Your task to perform on an android device: Do I have any events tomorrow? Image 0: 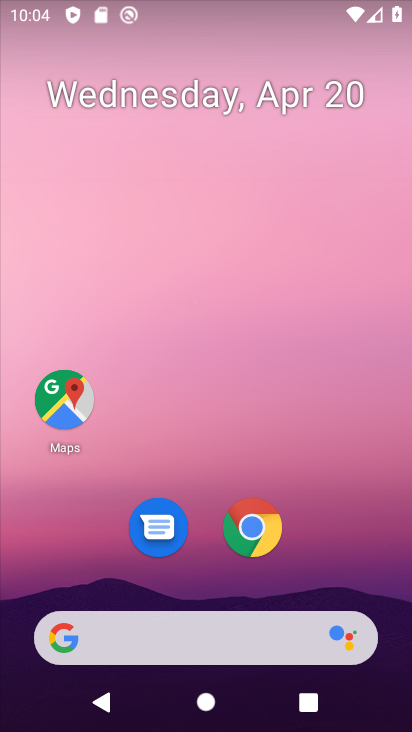
Step 0: click (73, 382)
Your task to perform on an android device: Do I have any events tomorrow? Image 1: 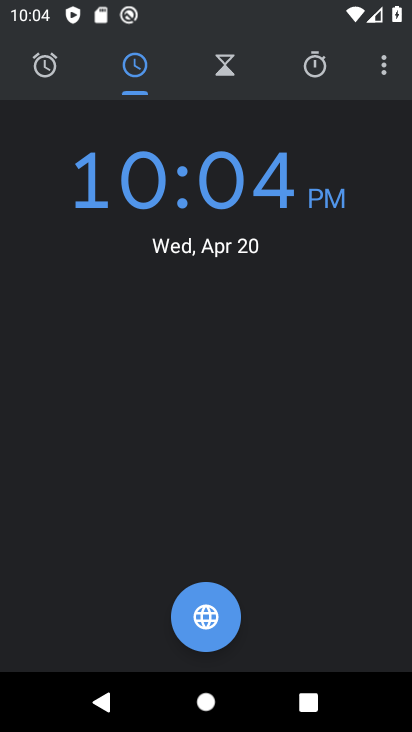
Step 1: press home button
Your task to perform on an android device: Do I have any events tomorrow? Image 2: 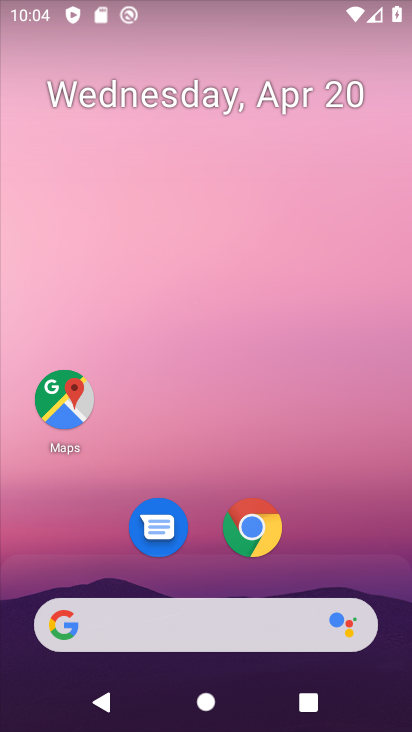
Step 2: drag from (208, 581) to (219, 8)
Your task to perform on an android device: Do I have any events tomorrow? Image 3: 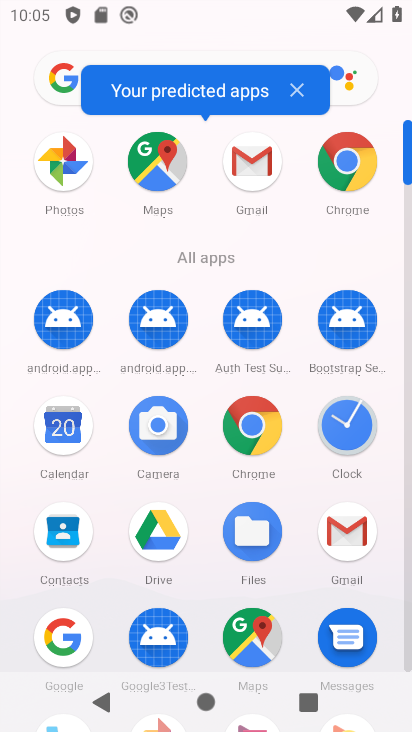
Step 3: click (74, 434)
Your task to perform on an android device: Do I have any events tomorrow? Image 4: 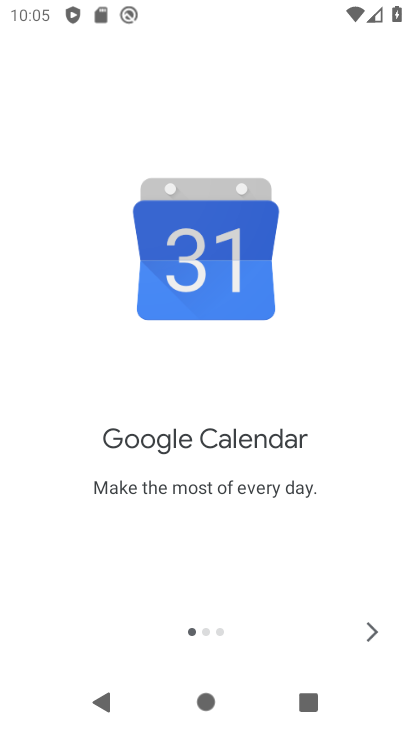
Step 4: click (372, 630)
Your task to perform on an android device: Do I have any events tomorrow? Image 5: 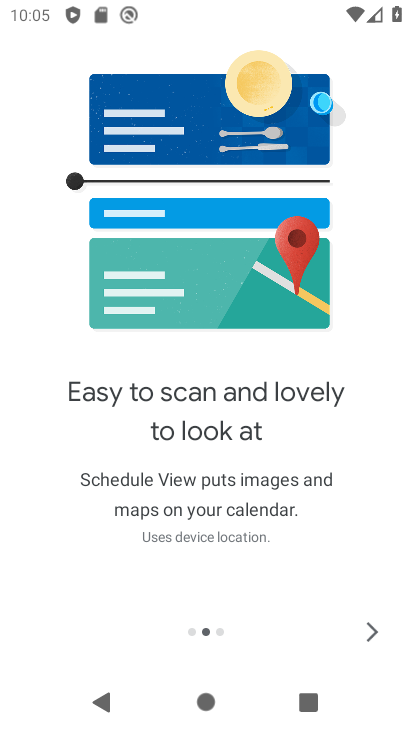
Step 5: click (372, 630)
Your task to perform on an android device: Do I have any events tomorrow? Image 6: 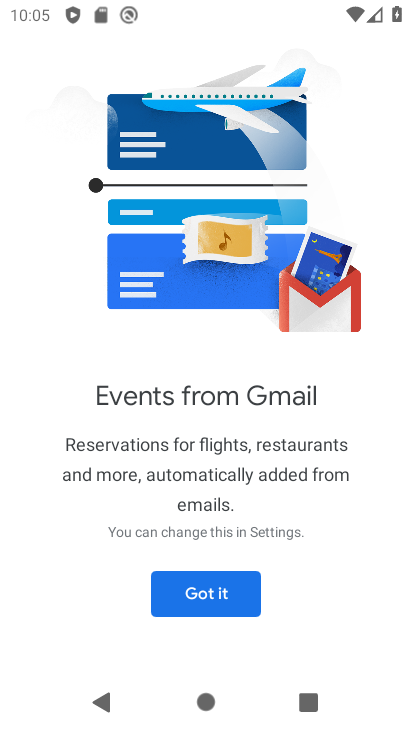
Step 6: click (201, 599)
Your task to perform on an android device: Do I have any events tomorrow? Image 7: 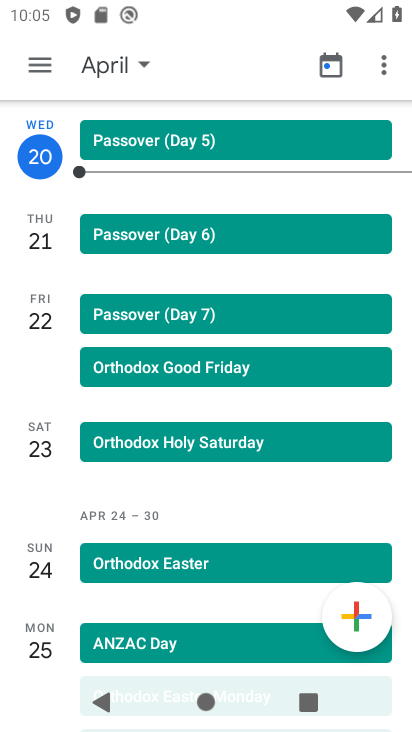
Step 7: click (38, 61)
Your task to perform on an android device: Do I have any events tomorrow? Image 8: 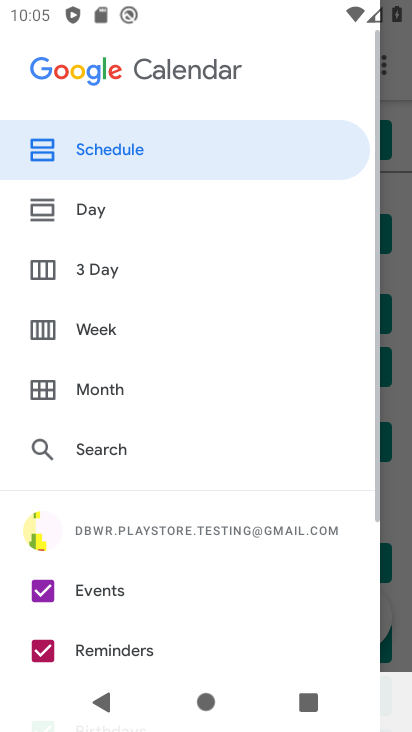
Step 8: drag from (51, 591) to (80, 378)
Your task to perform on an android device: Do I have any events tomorrow? Image 9: 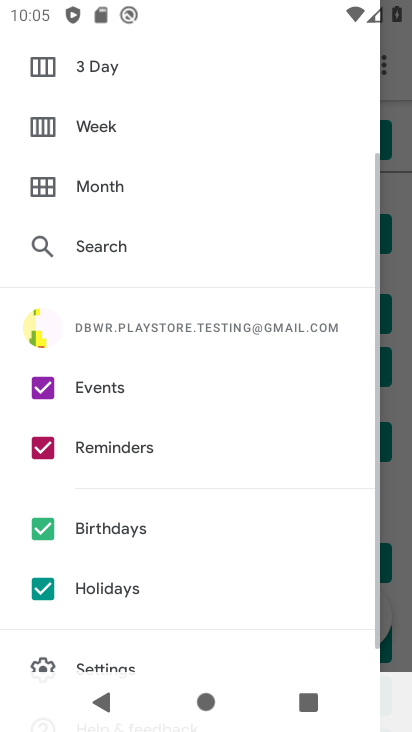
Step 9: click (50, 446)
Your task to perform on an android device: Do I have any events tomorrow? Image 10: 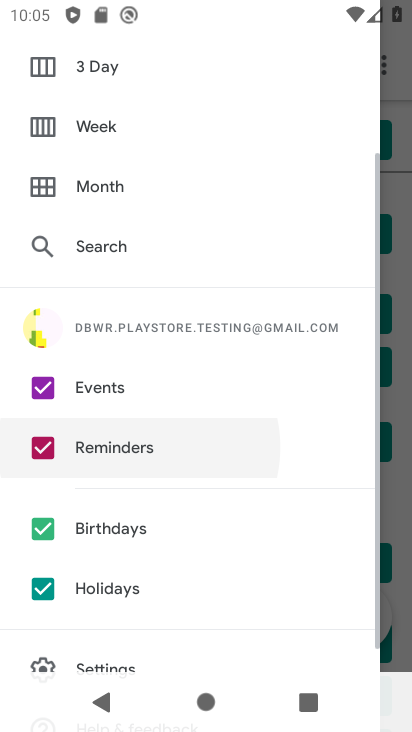
Step 10: click (42, 530)
Your task to perform on an android device: Do I have any events tomorrow? Image 11: 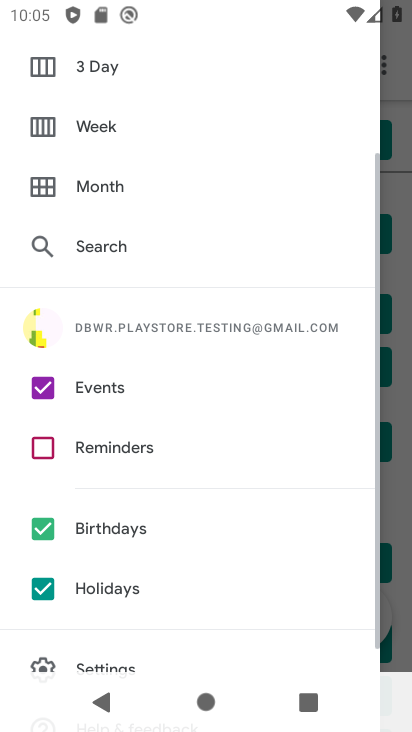
Step 11: click (37, 594)
Your task to perform on an android device: Do I have any events tomorrow? Image 12: 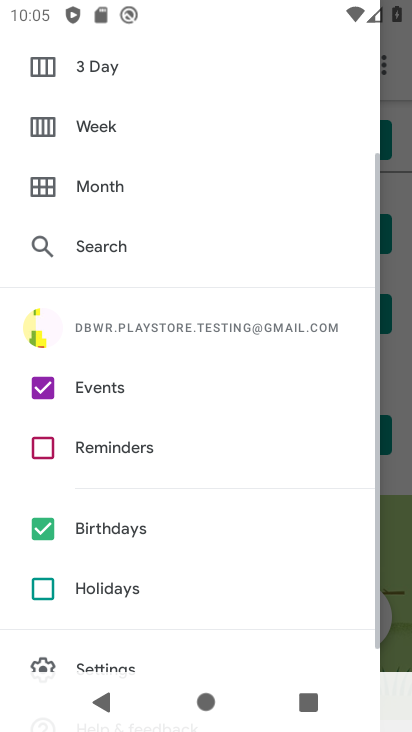
Step 12: click (46, 520)
Your task to perform on an android device: Do I have any events tomorrow? Image 13: 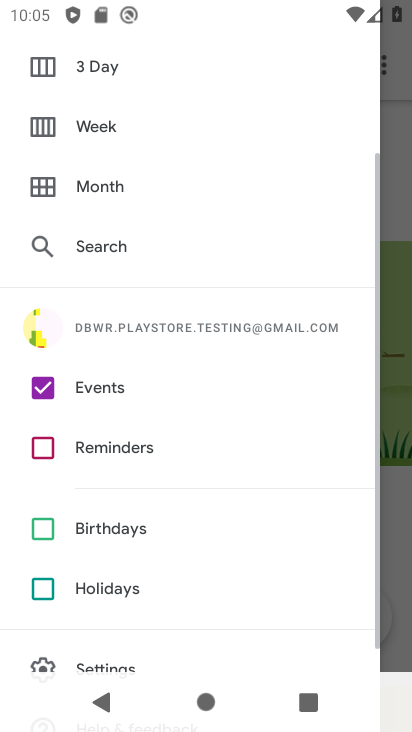
Step 13: click (101, 75)
Your task to perform on an android device: Do I have any events tomorrow? Image 14: 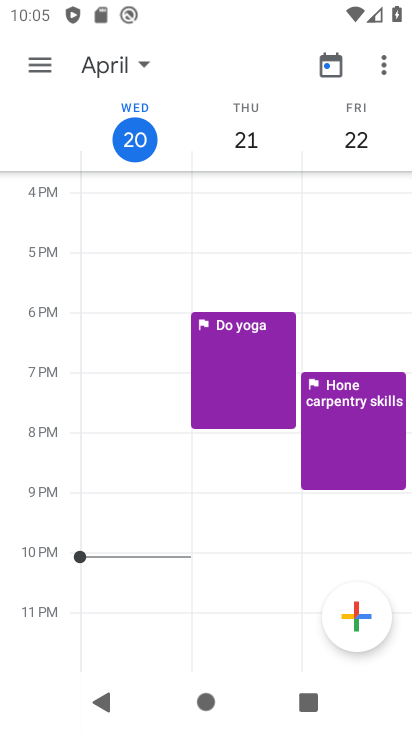
Step 14: task complete